Your task to perform on an android device: Open network settings Image 0: 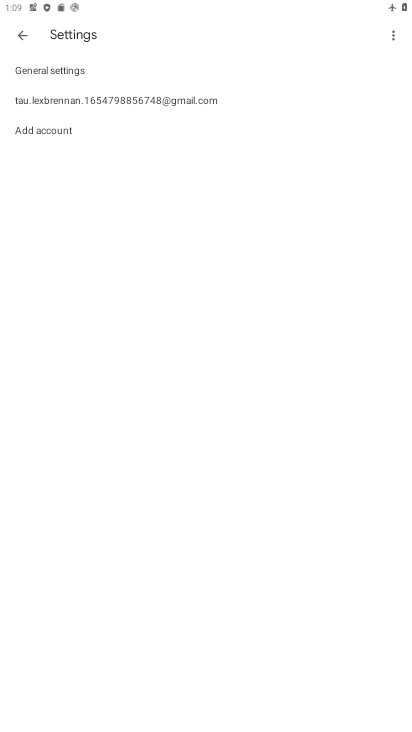
Step 0: press home button
Your task to perform on an android device: Open network settings Image 1: 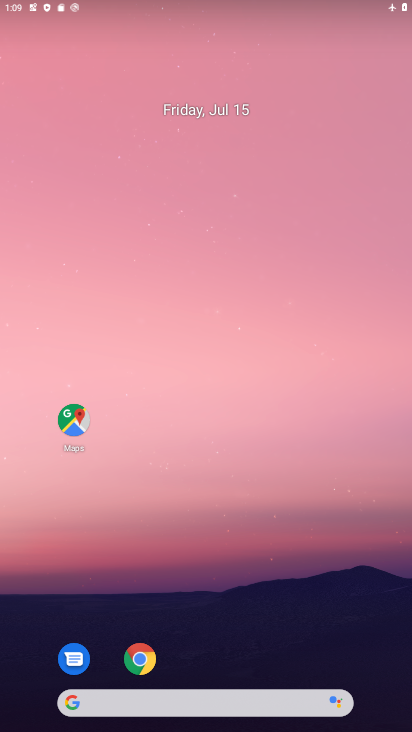
Step 1: drag from (187, 675) to (178, 239)
Your task to perform on an android device: Open network settings Image 2: 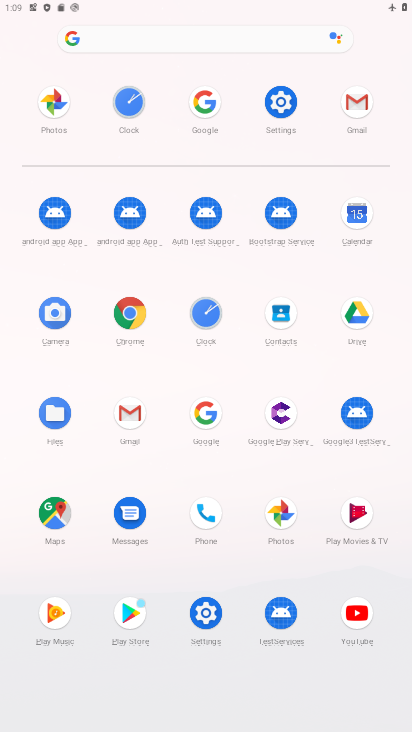
Step 2: click (303, 106)
Your task to perform on an android device: Open network settings Image 3: 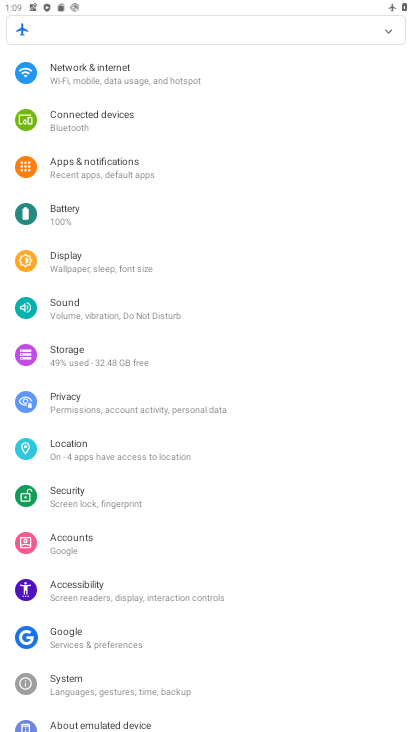
Step 3: click (101, 77)
Your task to perform on an android device: Open network settings Image 4: 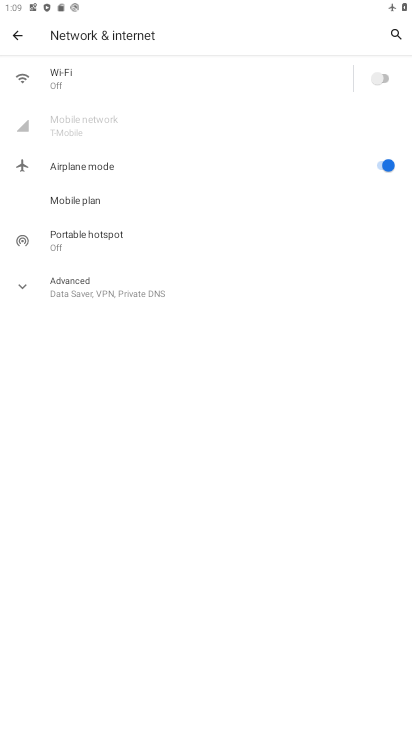
Step 4: task complete